Your task to perform on an android device: create a new album in the google photos Image 0: 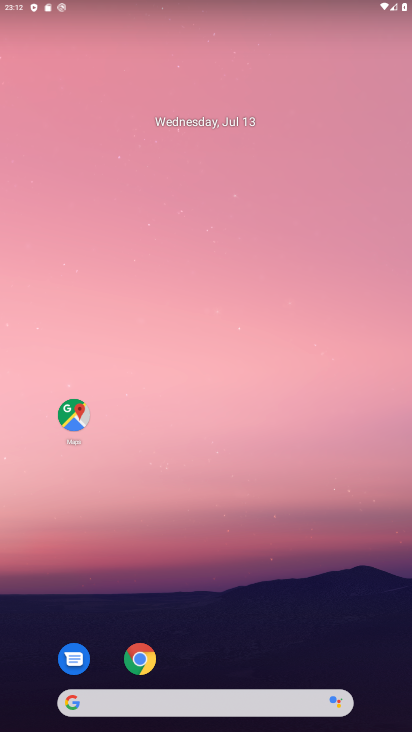
Step 0: drag from (381, 649) to (328, 203)
Your task to perform on an android device: create a new album in the google photos Image 1: 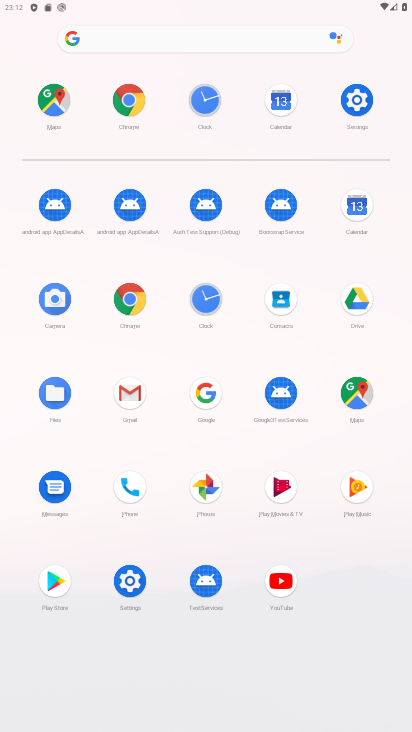
Step 1: click (205, 485)
Your task to perform on an android device: create a new album in the google photos Image 2: 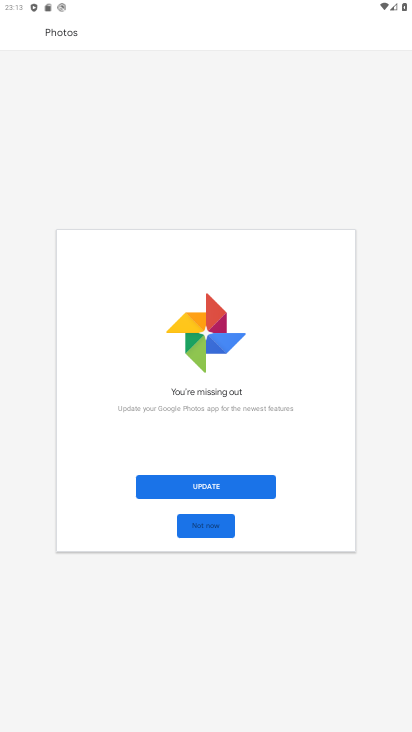
Step 2: click (215, 480)
Your task to perform on an android device: create a new album in the google photos Image 3: 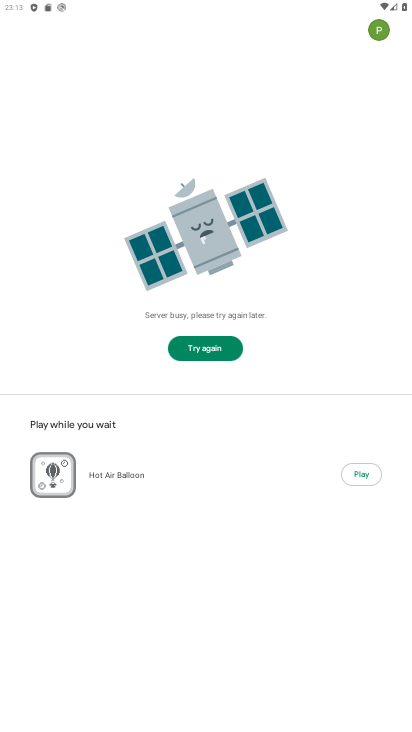
Step 3: click (199, 341)
Your task to perform on an android device: create a new album in the google photos Image 4: 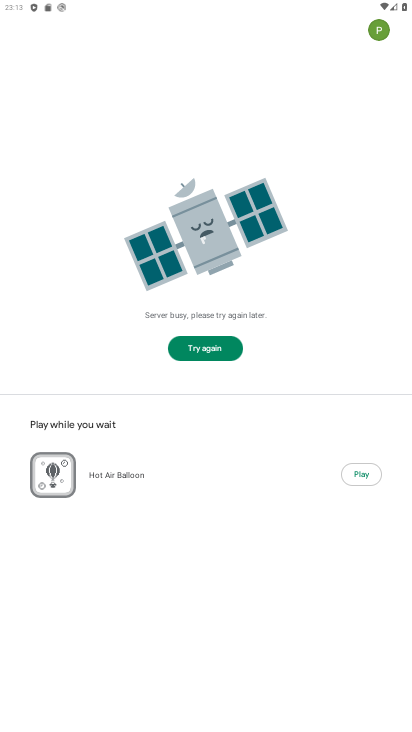
Step 4: click (202, 348)
Your task to perform on an android device: create a new album in the google photos Image 5: 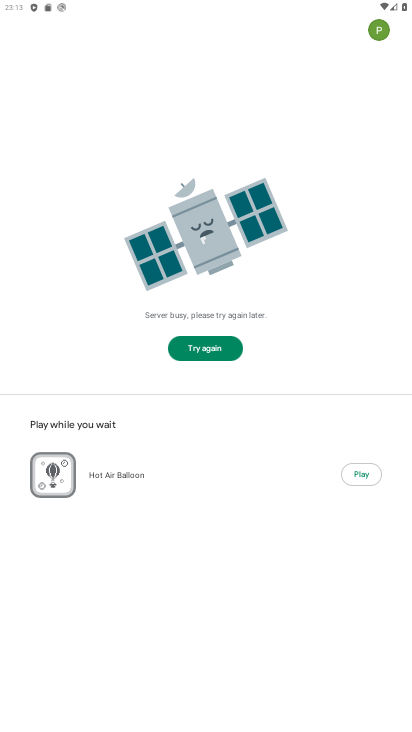
Step 5: click (203, 347)
Your task to perform on an android device: create a new album in the google photos Image 6: 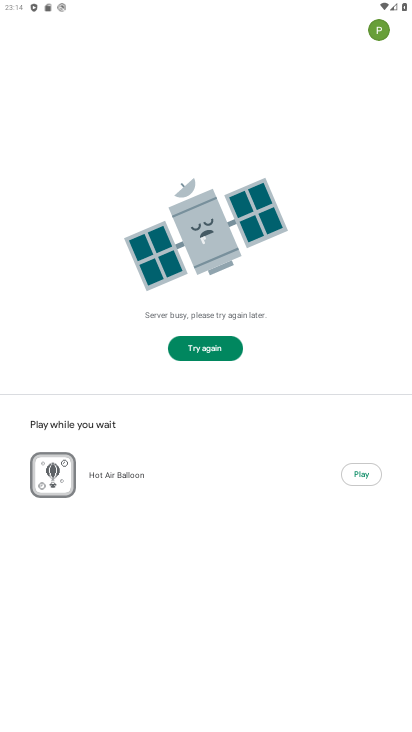
Step 6: click (203, 347)
Your task to perform on an android device: create a new album in the google photos Image 7: 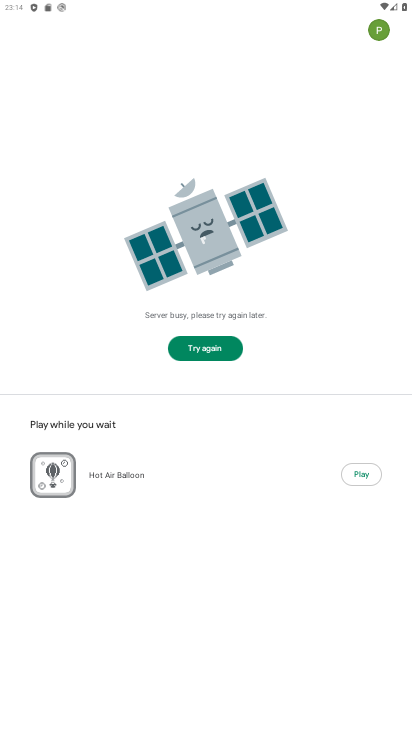
Step 7: click (202, 350)
Your task to perform on an android device: create a new album in the google photos Image 8: 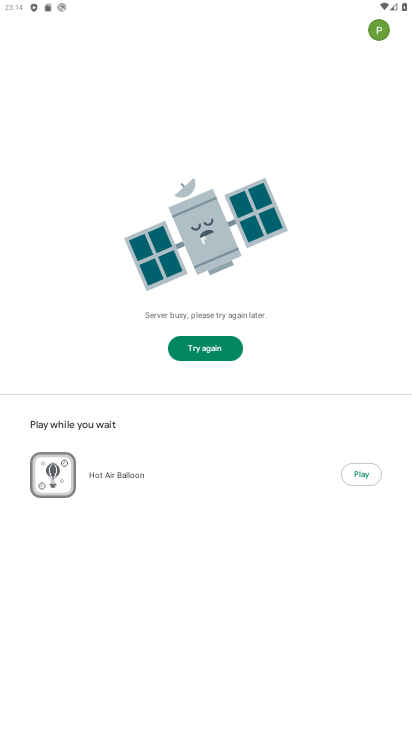
Step 8: task complete